Your task to perform on an android device: toggle pop-ups in chrome Image 0: 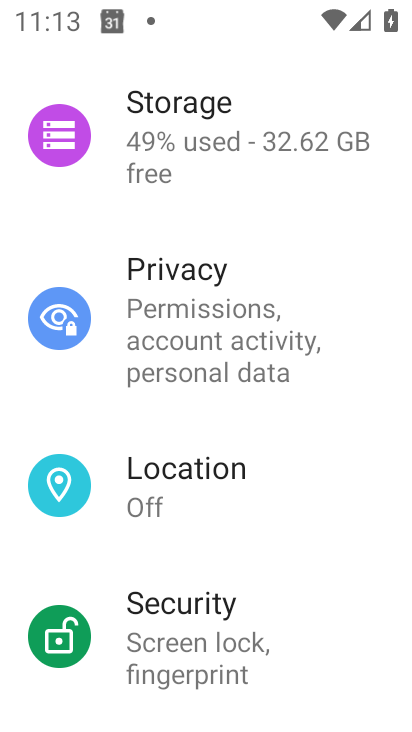
Step 0: press home button
Your task to perform on an android device: toggle pop-ups in chrome Image 1: 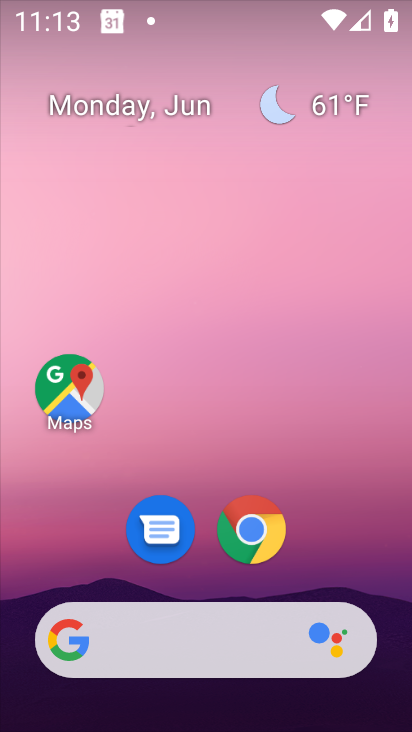
Step 1: click (259, 541)
Your task to perform on an android device: toggle pop-ups in chrome Image 2: 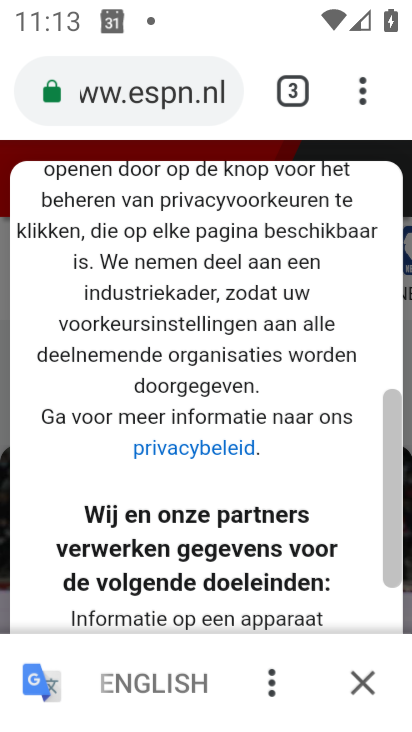
Step 2: drag from (378, 115) to (270, 564)
Your task to perform on an android device: toggle pop-ups in chrome Image 3: 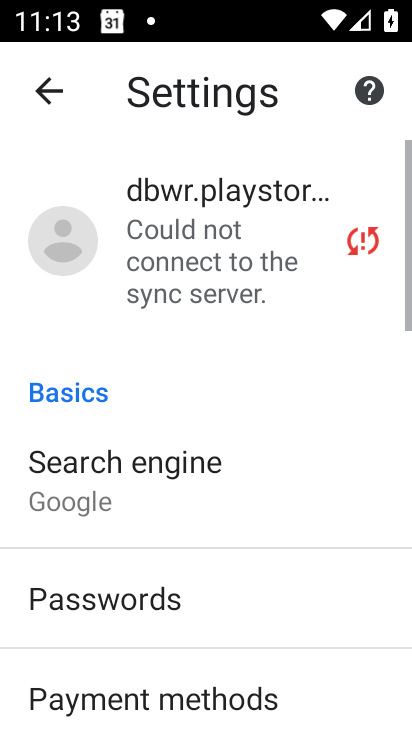
Step 3: drag from (224, 566) to (367, 158)
Your task to perform on an android device: toggle pop-ups in chrome Image 4: 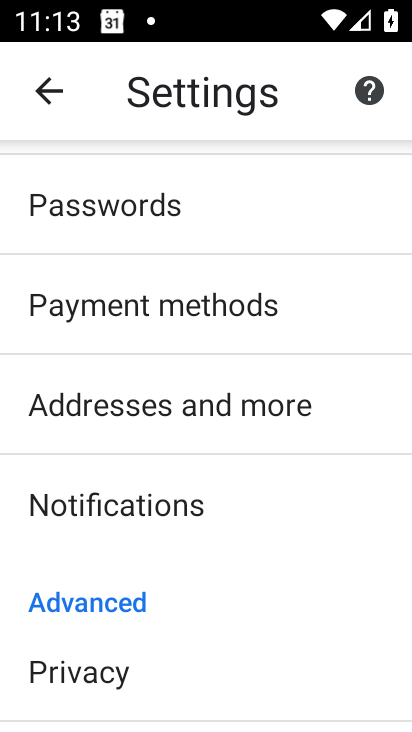
Step 4: drag from (208, 639) to (350, 229)
Your task to perform on an android device: toggle pop-ups in chrome Image 5: 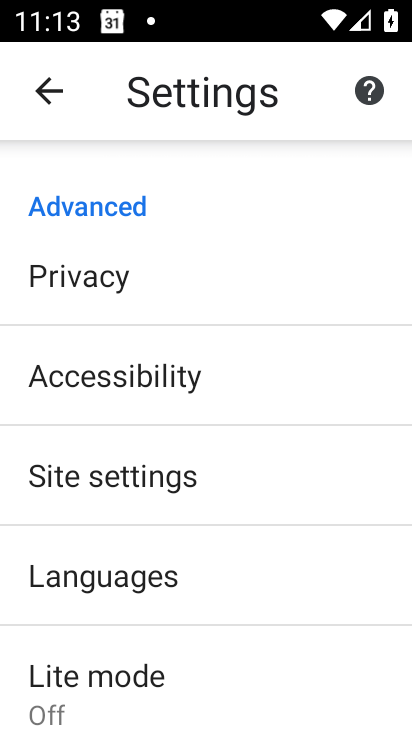
Step 5: click (188, 478)
Your task to perform on an android device: toggle pop-ups in chrome Image 6: 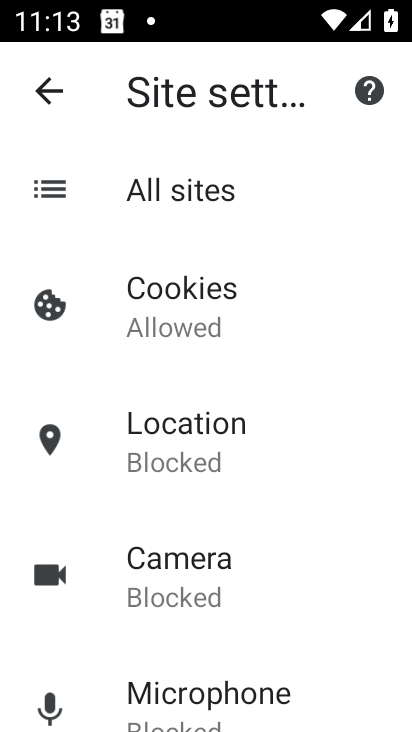
Step 6: drag from (217, 626) to (362, 248)
Your task to perform on an android device: toggle pop-ups in chrome Image 7: 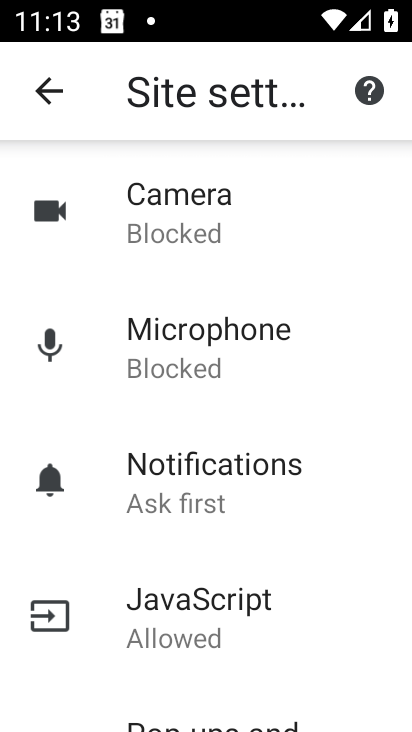
Step 7: drag from (197, 647) to (347, 271)
Your task to perform on an android device: toggle pop-ups in chrome Image 8: 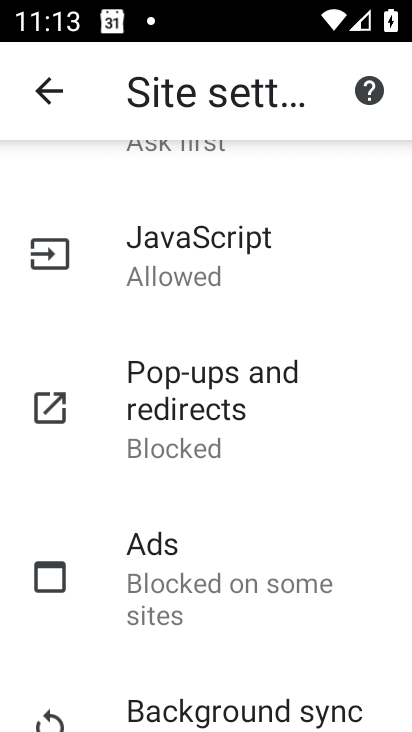
Step 8: click (231, 404)
Your task to perform on an android device: toggle pop-ups in chrome Image 9: 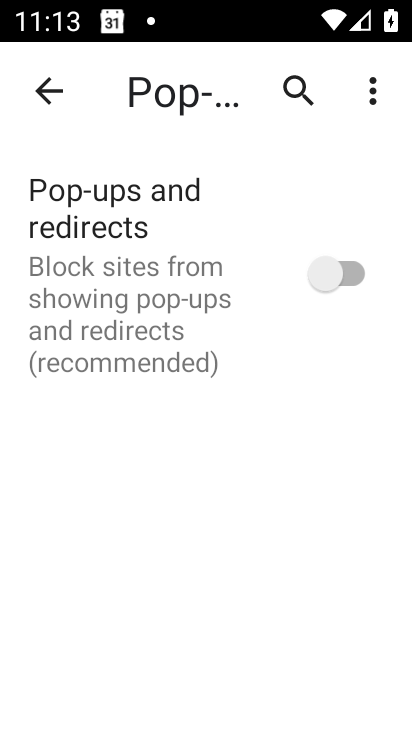
Step 9: click (386, 267)
Your task to perform on an android device: toggle pop-ups in chrome Image 10: 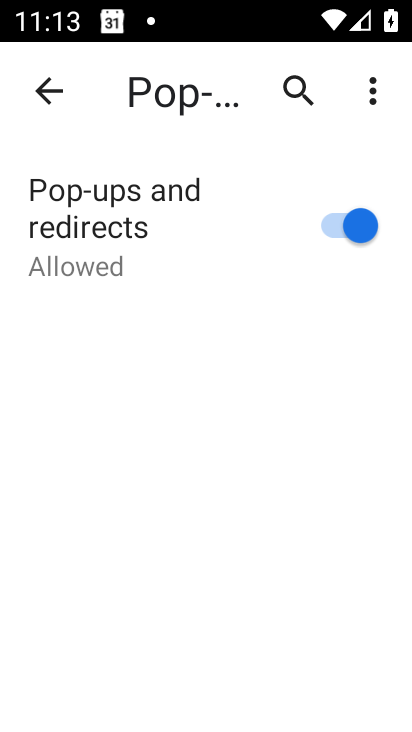
Step 10: task complete